Your task to perform on an android device: Open Google Image 0: 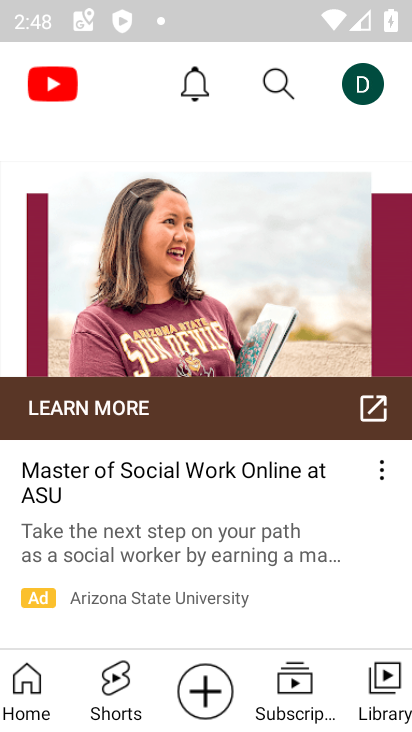
Step 0: press home button
Your task to perform on an android device: Open Google Image 1: 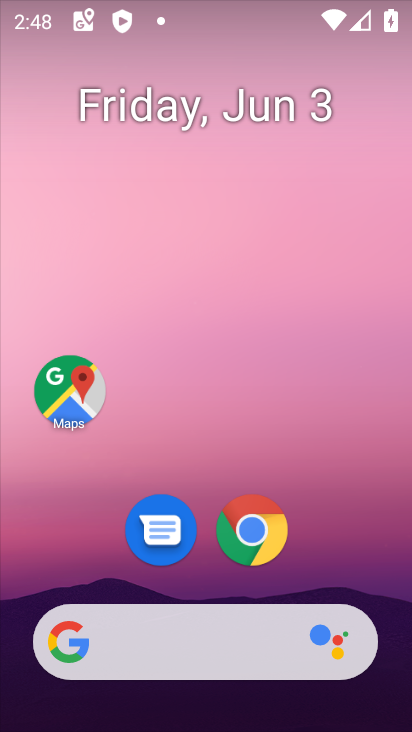
Step 1: click (59, 637)
Your task to perform on an android device: Open Google Image 2: 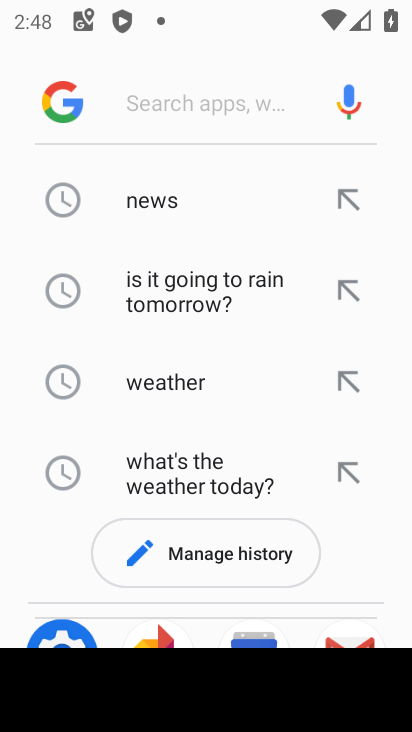
Step 2: click (55, 119)
Your task to perform on an android device: Open Google Image 3: 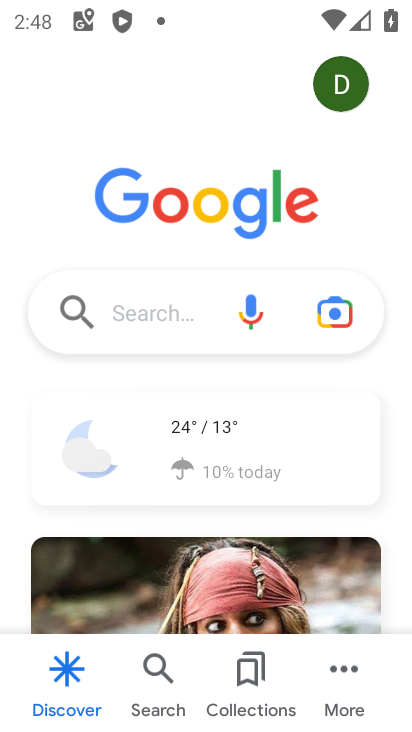
Step 3: task complete